Your task to perform on an android device: Open calendar and show me the second week of next month Image 0: 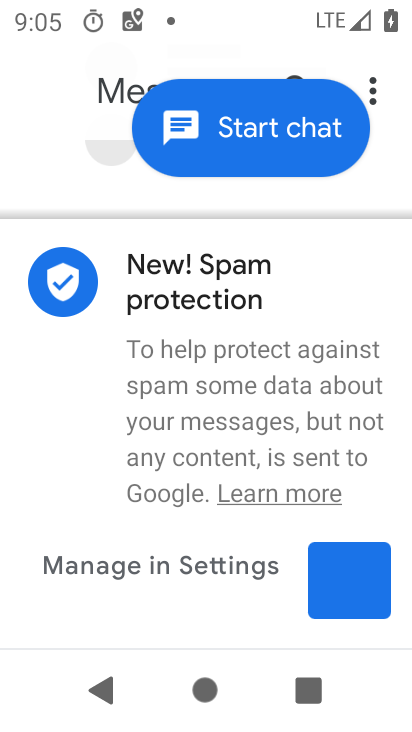
Step 0: press home button
Your task to perform on an android device: Open calendar and show me the second week of next month Image 1: 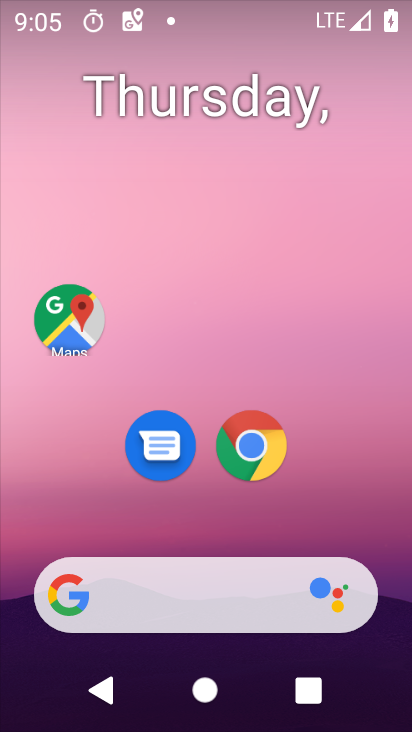
Step 1: drag from (376, 546) to (264, 5)
Your task to perform on an android device: Open calendar and show me the second week of next month Image 2: 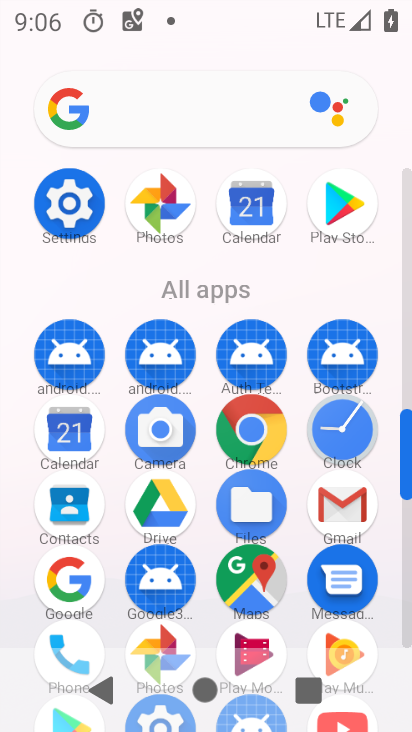
Step 2: click (77, 444)
Your task to perform on an android device: Open calendar and show me the second week of next month Image 3: 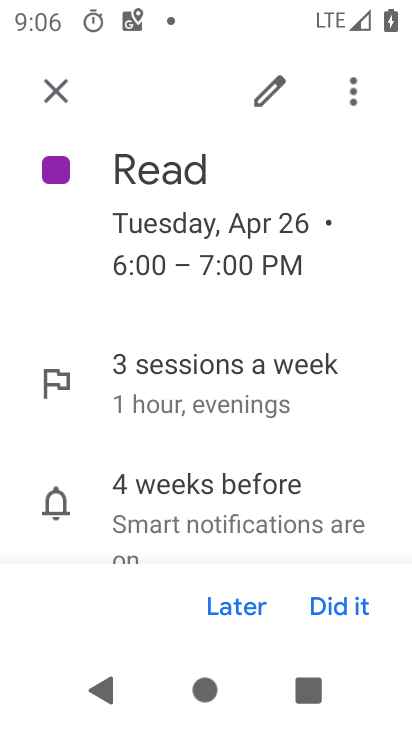
Step 3: click (43, 100)
Your task to perform on an android device: Open calendar and show me the second week of next month Image 4: 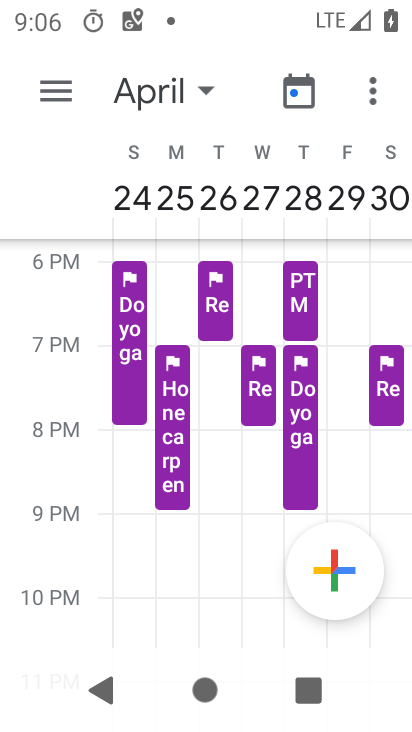
Step 4: click (199, 94)
Your task to perform on an android device: Open calendar and show me the second week of next month Image 5: 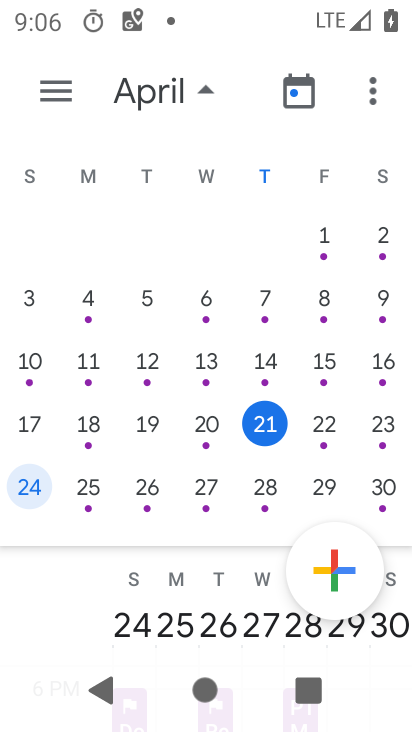
Step 5: drag from (354, 307) to (72, 324)
Your task to perform on an android device: Open calendar and show me the second week of next month Image 6: 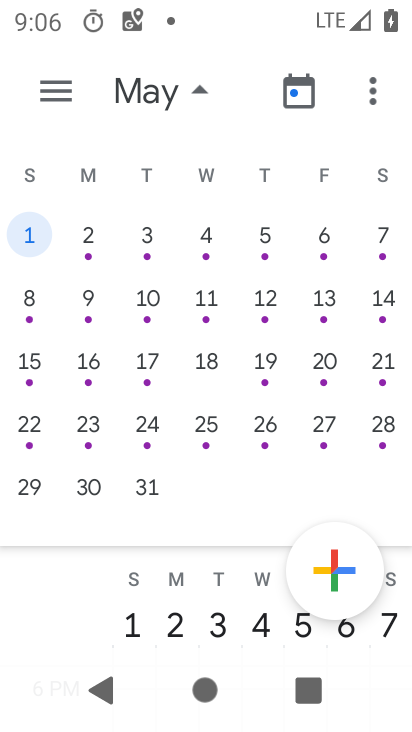
Step 6: click (52, 100)
Your task to perform on an android device: Open calendar and show me the second week of next month Image 7: 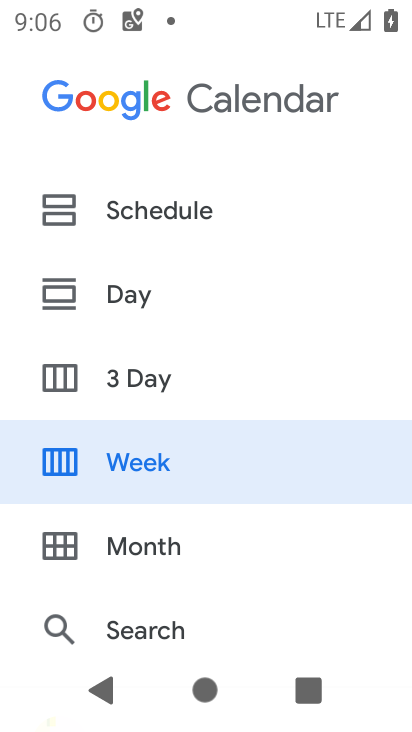
Step 7: click (104, 459)
Your task to perform on an android device: Open calendar and show me the second week of next month Image 8: 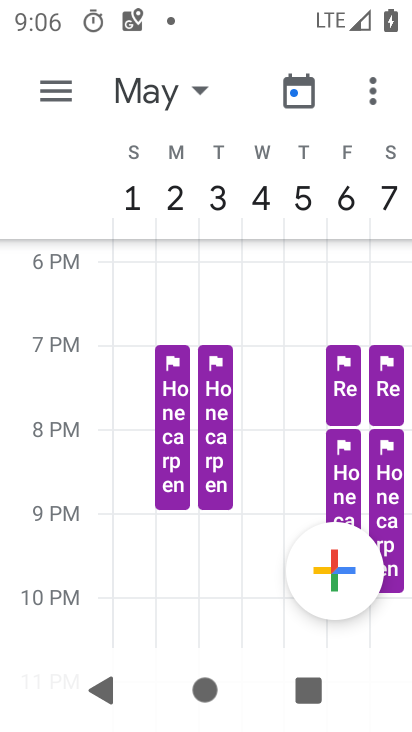
Step 8: task complete